Your task to perform on an android device: turn pop-ups on in chrome Image 0: 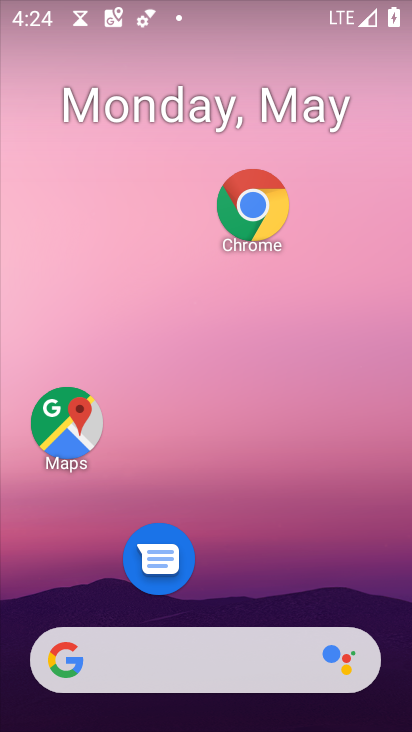
Step 0: click (257, 209)
Your task to perform on an android device: turn pop-ups on in chrome Image 1: 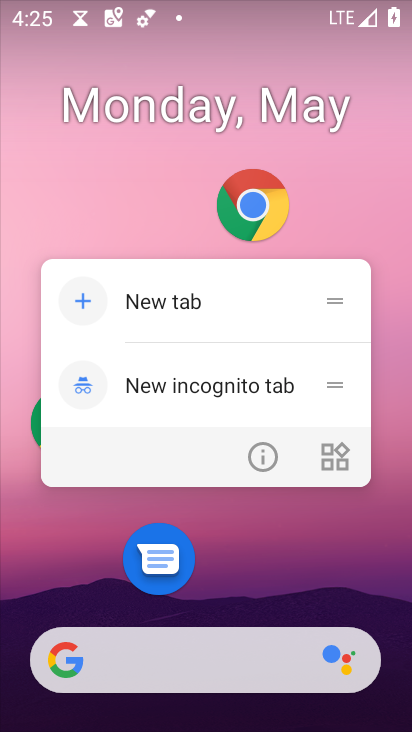
Step 1: click (257, 209)
Your task to perform on an android device: turn pop-ups on in chrome Image 2: 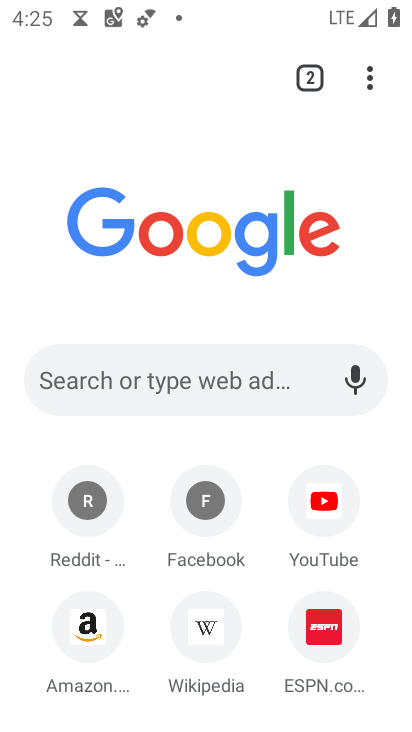
Step 2: click (364, 72)
Your task to perform on an android device: turn pop-ups on in chrome Image 3: 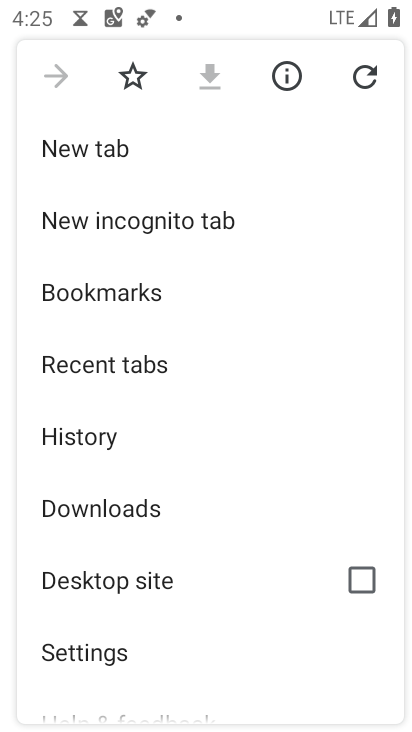
Step 3: click (93, 661)
Your task to perform on an android device: turn pop-ups on in chrome Image 4: 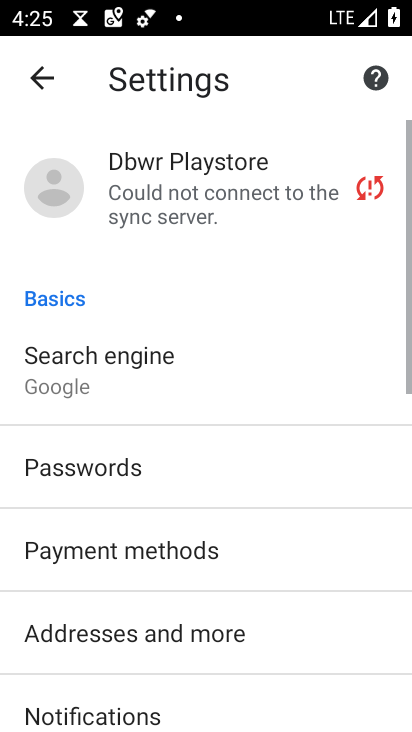
Step 4: drag from (120, 672) to (103, 265)
Your task to perform on an android device: turn pop-ups on in chrome Image 5: 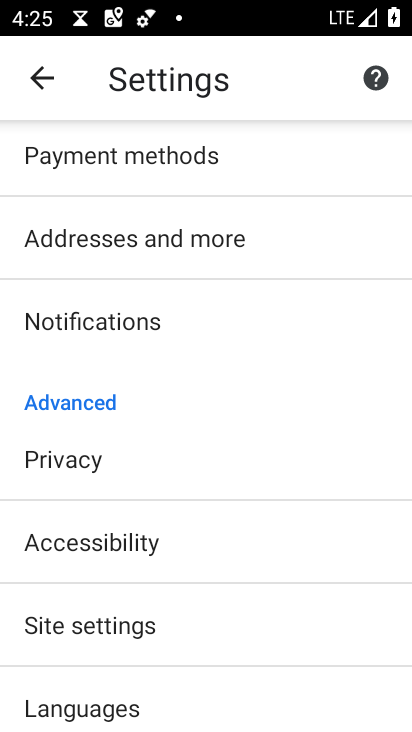
Step 5: click (122, 630)
Your task to perform on an android device: turn pop-ups on in chrome Image 6: 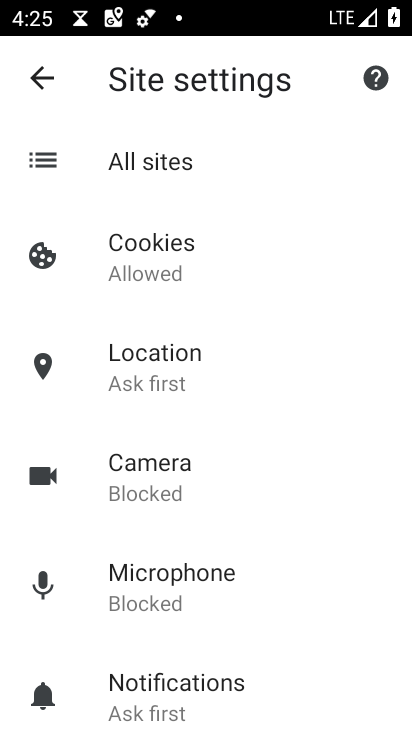
Step 6: drag from (122, 653) to (133, 325)
Your task to perform on an android device: turn pop-ups on in chrome Image 7: 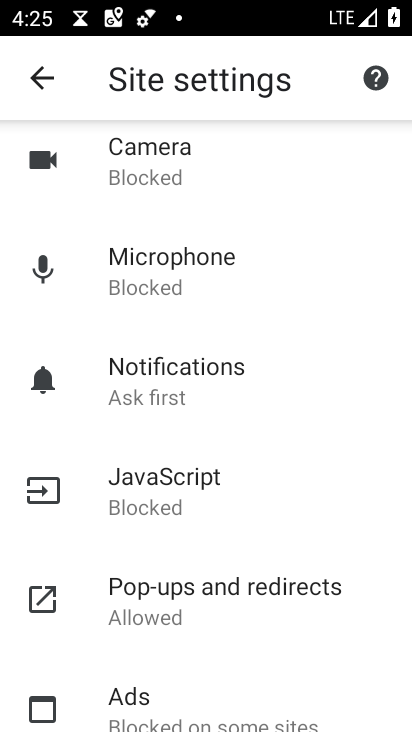
Step 7: click (151, 619)
Your task to perform on an android device: turn pop-ups on in chrome Image 8: 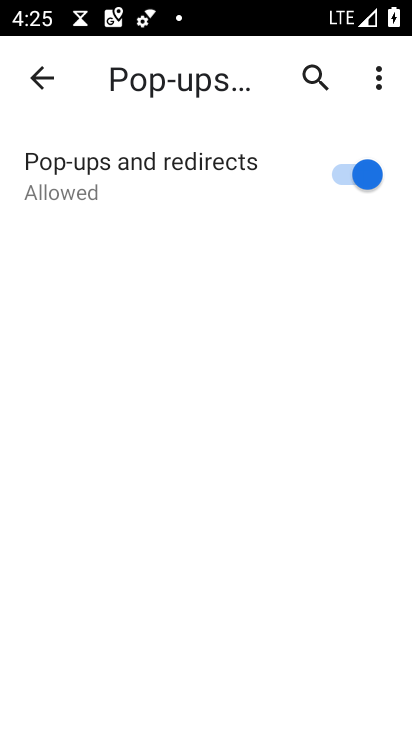
Step 8: task complete